Your task to perform on an android device: Open the Play Movies app and select the watchlist tab. Image 0: 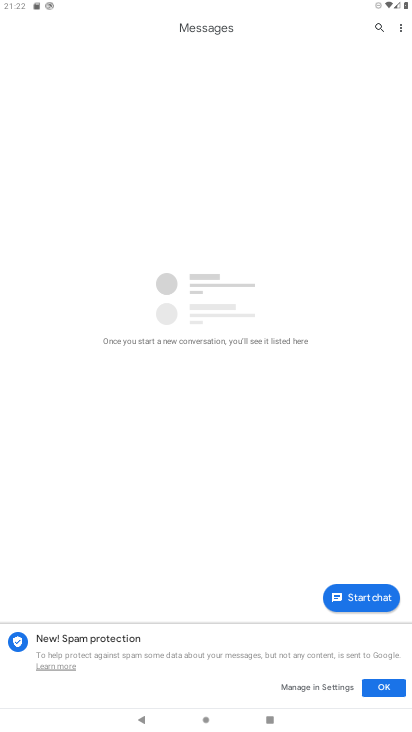
Step 0: press home button
Your task to perform on an android device: Open the Play Movies app and select the watchlist tab. Image 1: 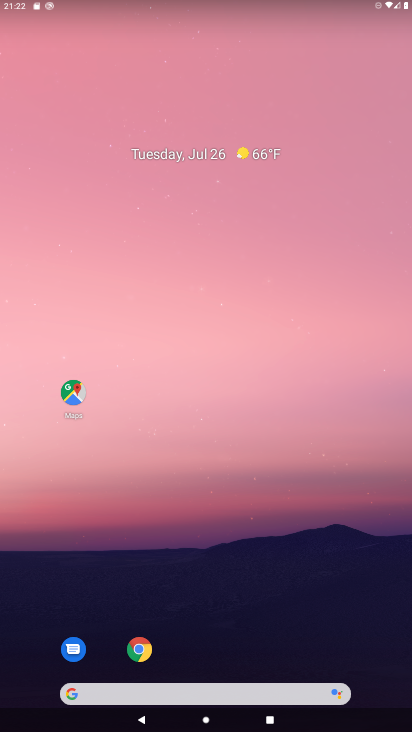
Step 1: drag from (224, 726) to (270, 74)
Your task to perform on an android device: Open the Play Movies app and select the watchlist tab. Image 2: 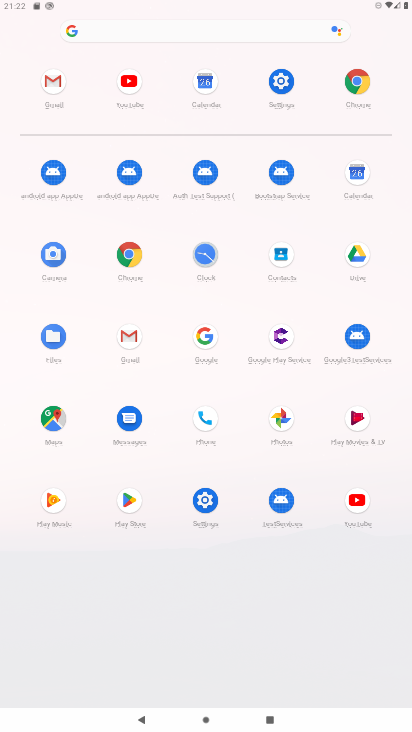
Step 2: click (359, 423)
Your task to perform on an android device: Open the Play Movies app and select the watchlist tab. Image 3: 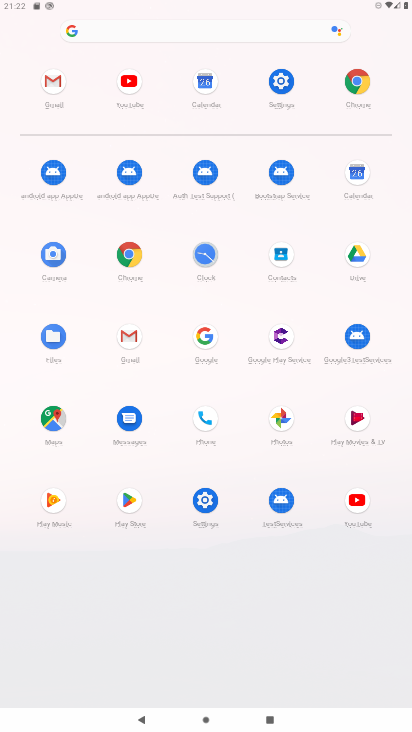
Step 3: click (359, 423)
Your task to perform on an android device: Open the Play Movies app and select the watchlist tab. Image 4: 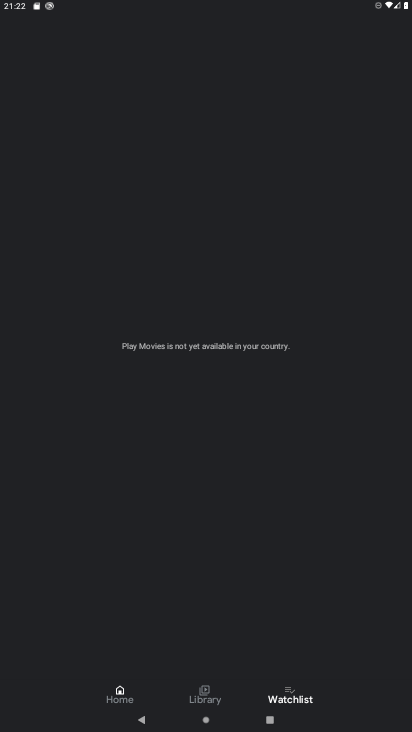
Step 4: task complete